Your task to perform on an android device: open app "Indeed Job Search" Image 0: 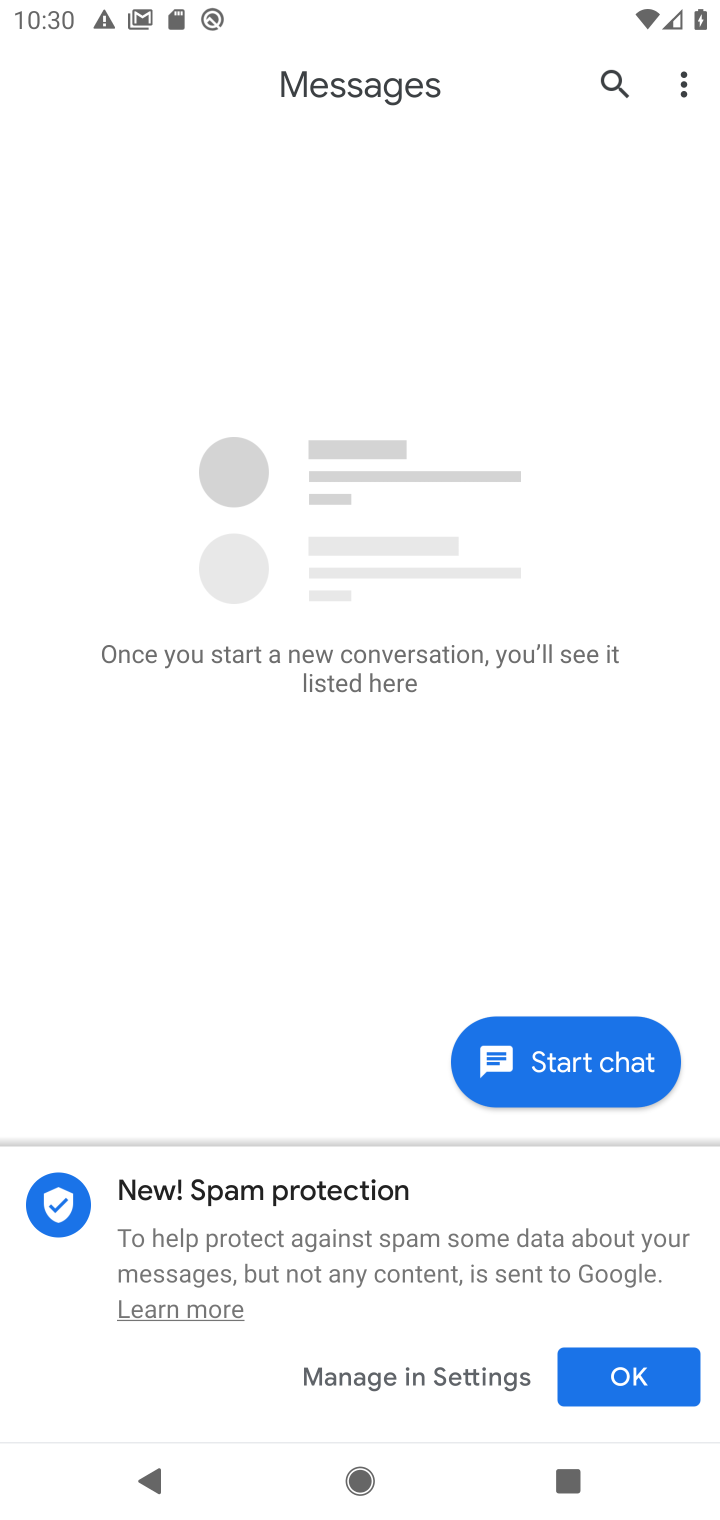
Step 0: press back button
Your task to perform on an android device: open app "Indeed Job Search" Image 1: 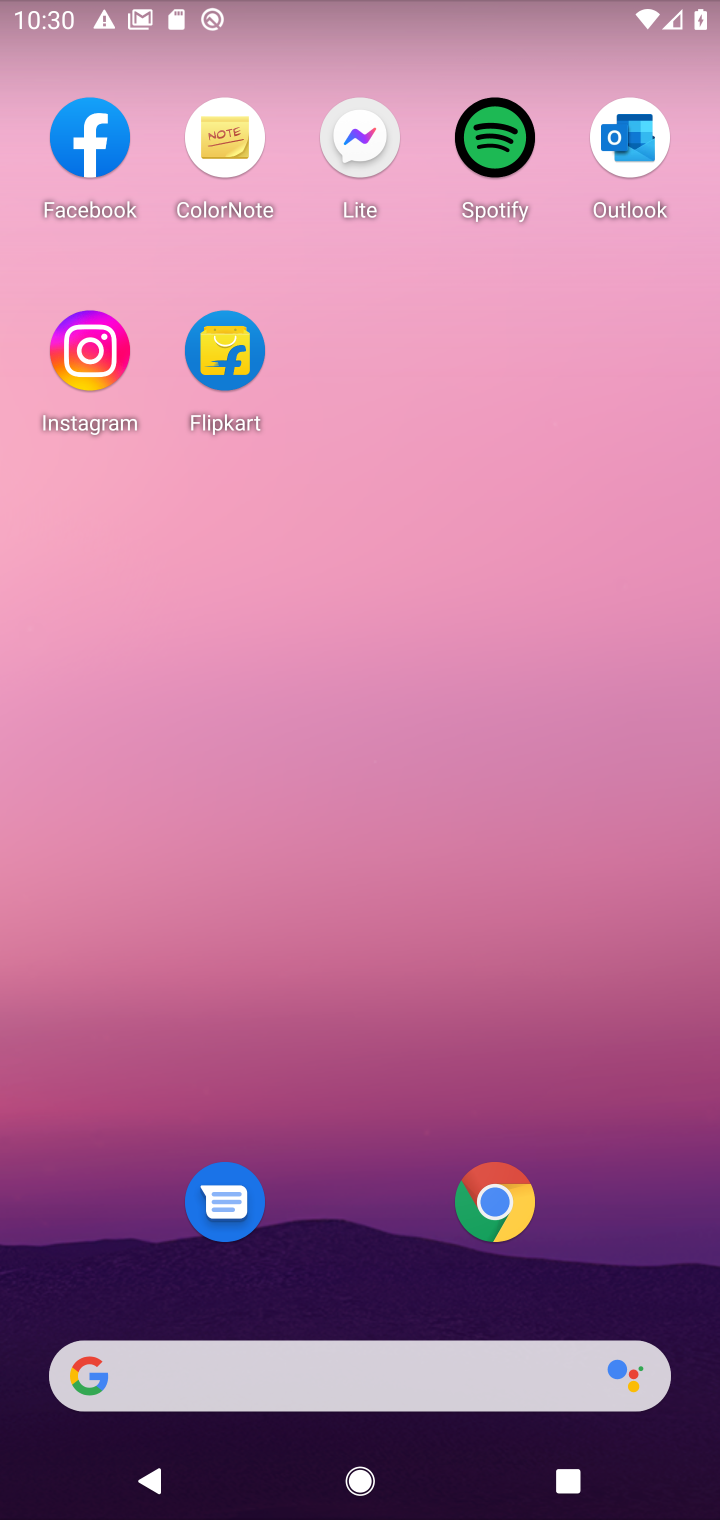
Step 1: drag from (390, 1383) to (457, 135)
Your task to perform on an android device: open app "Indeed Job Search" Image 2: 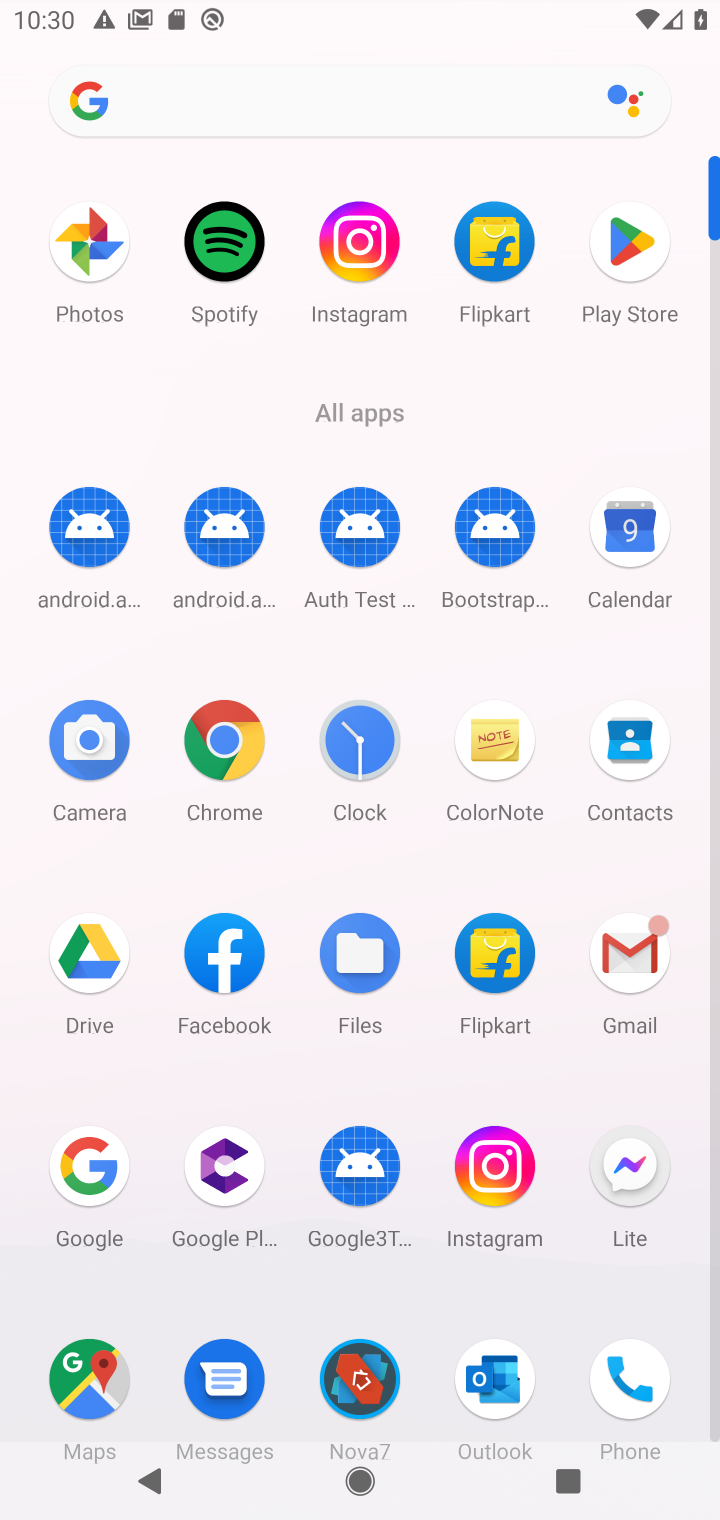
Step 2: click (651, 240)
Your task to perform on an android device: open app "Indeed Job Search" Image 3: 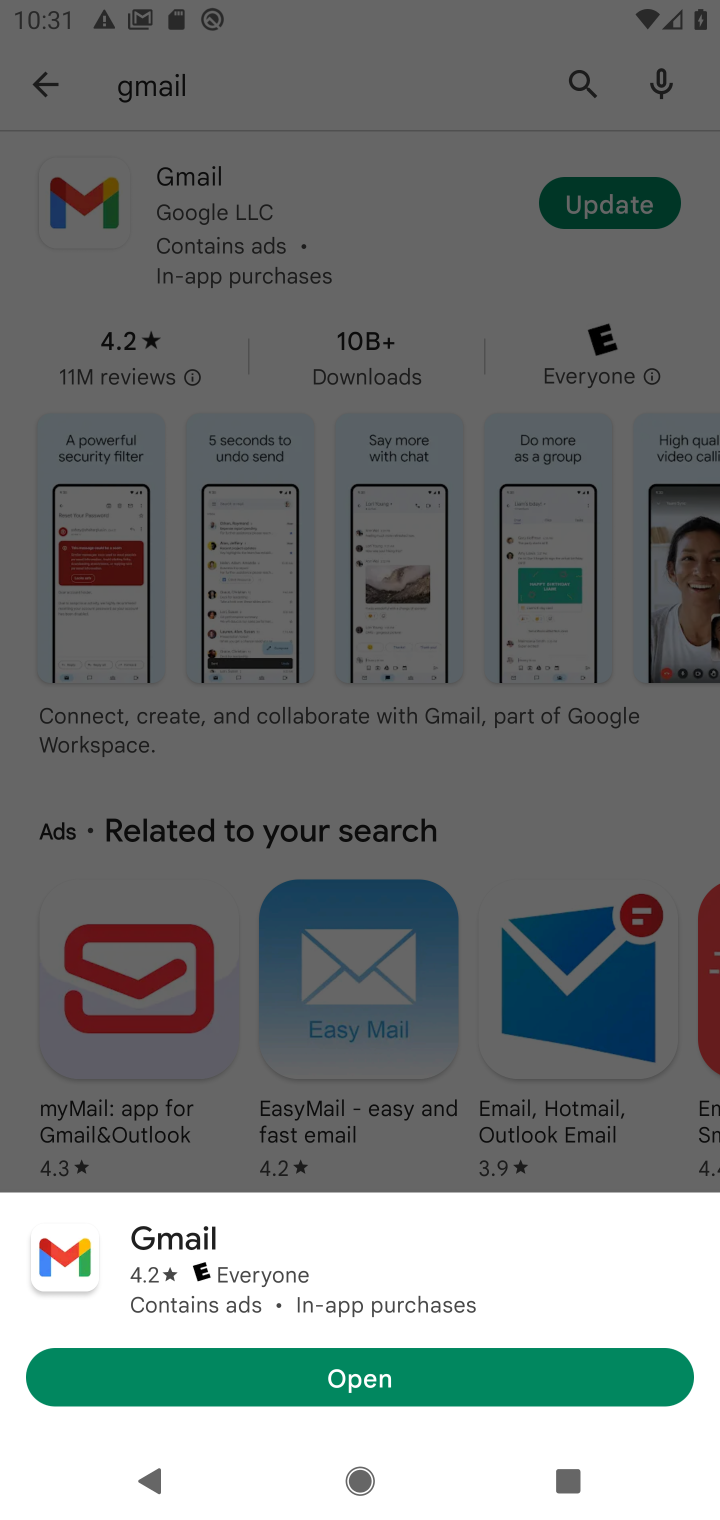
Step 3: press back button
Your task to perform on an android device: open app "Indeed Job Search" Image 4: 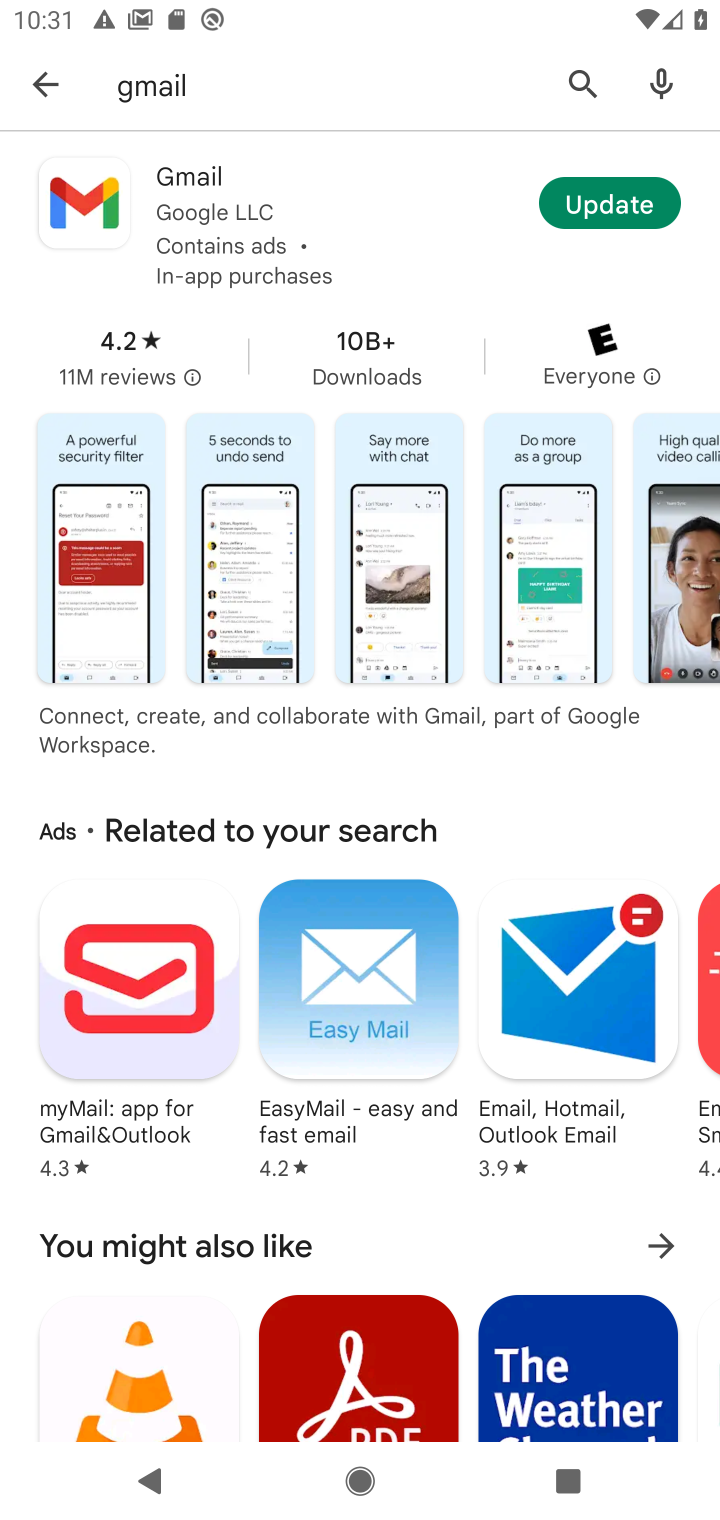
Step 4: click (568, 82)
Your task to perform on an android device: open app "Indeed Job Search" Image 5: 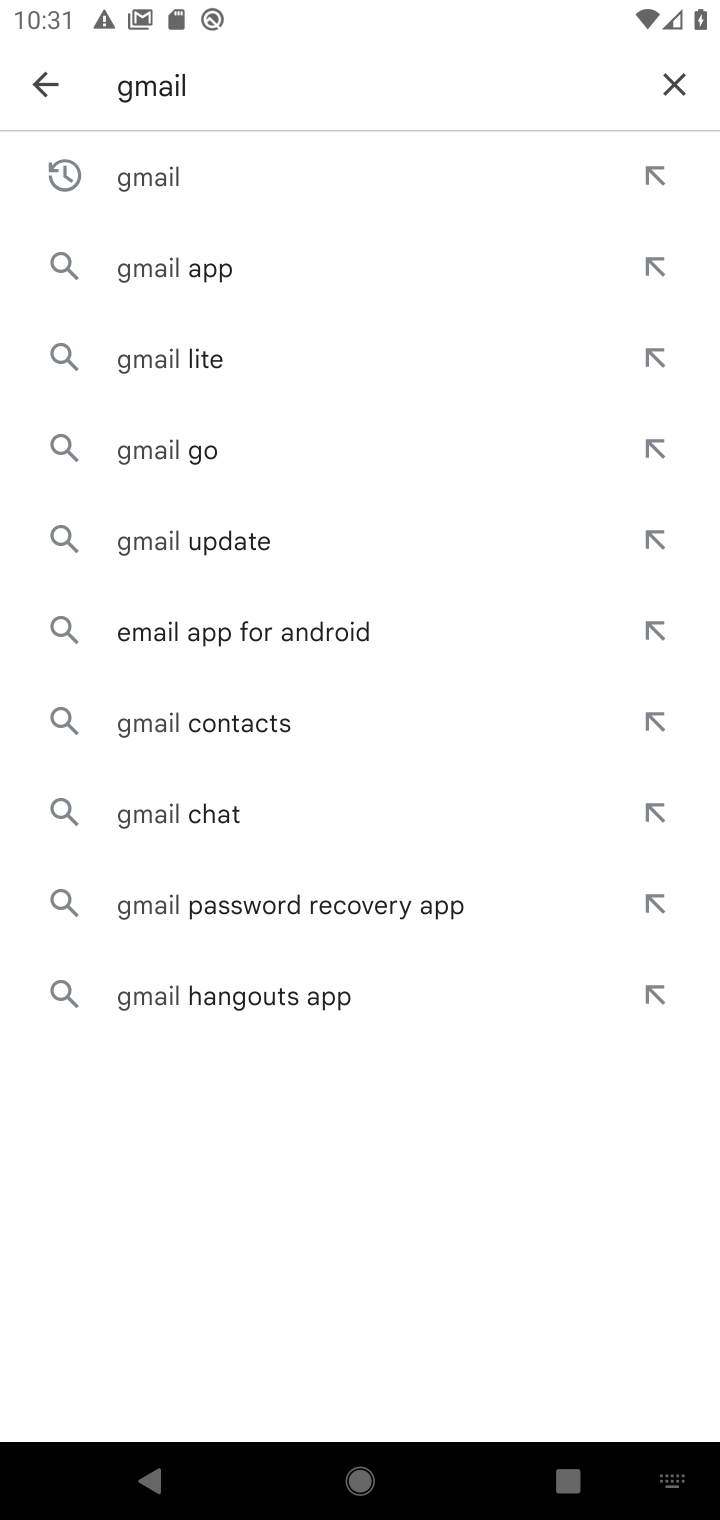
Step 5: click (677, 73)
Your task to perform on an android device: open app "Indeed Job Search" Image 6: 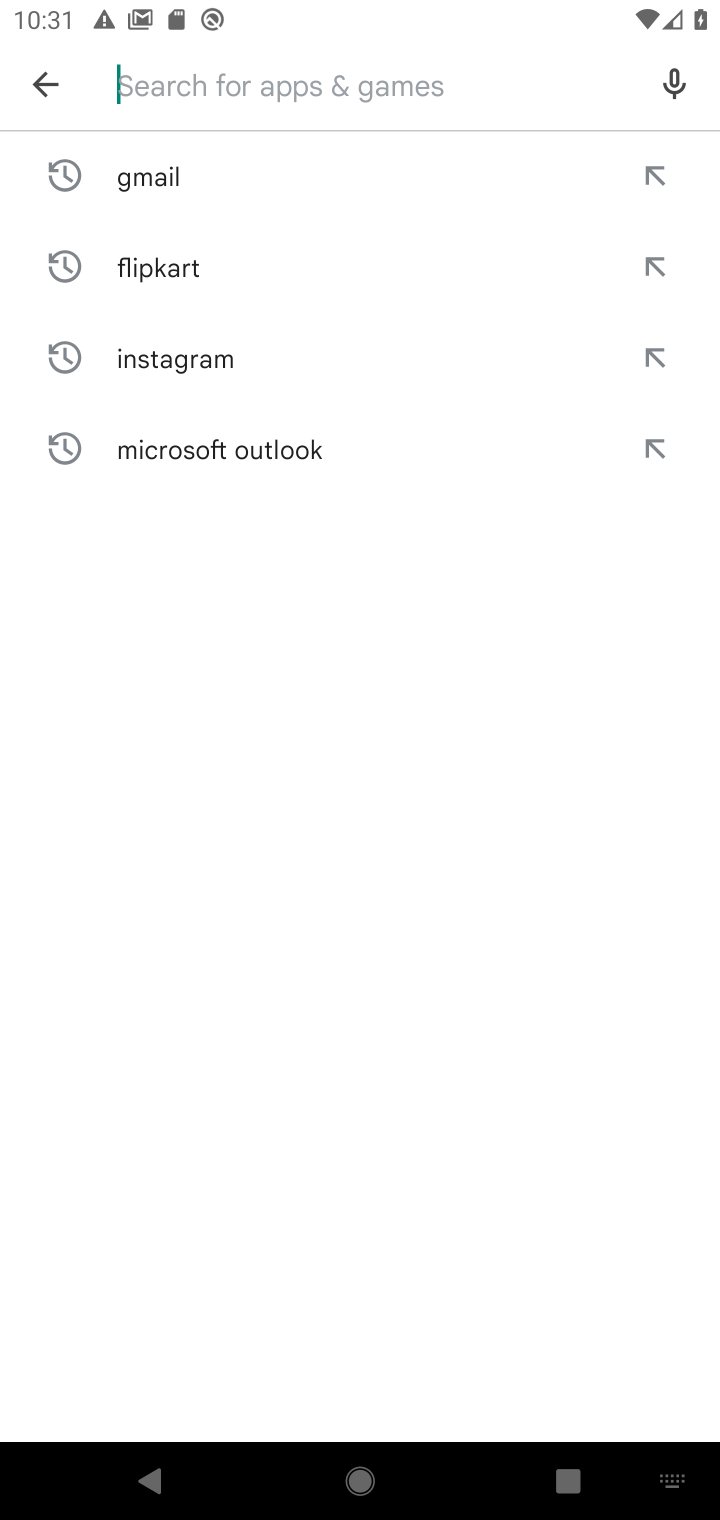
Step 6: type "Indeed Job Search"
Your task to perform on an android device: open app "Indeed Job Search" Image 7: 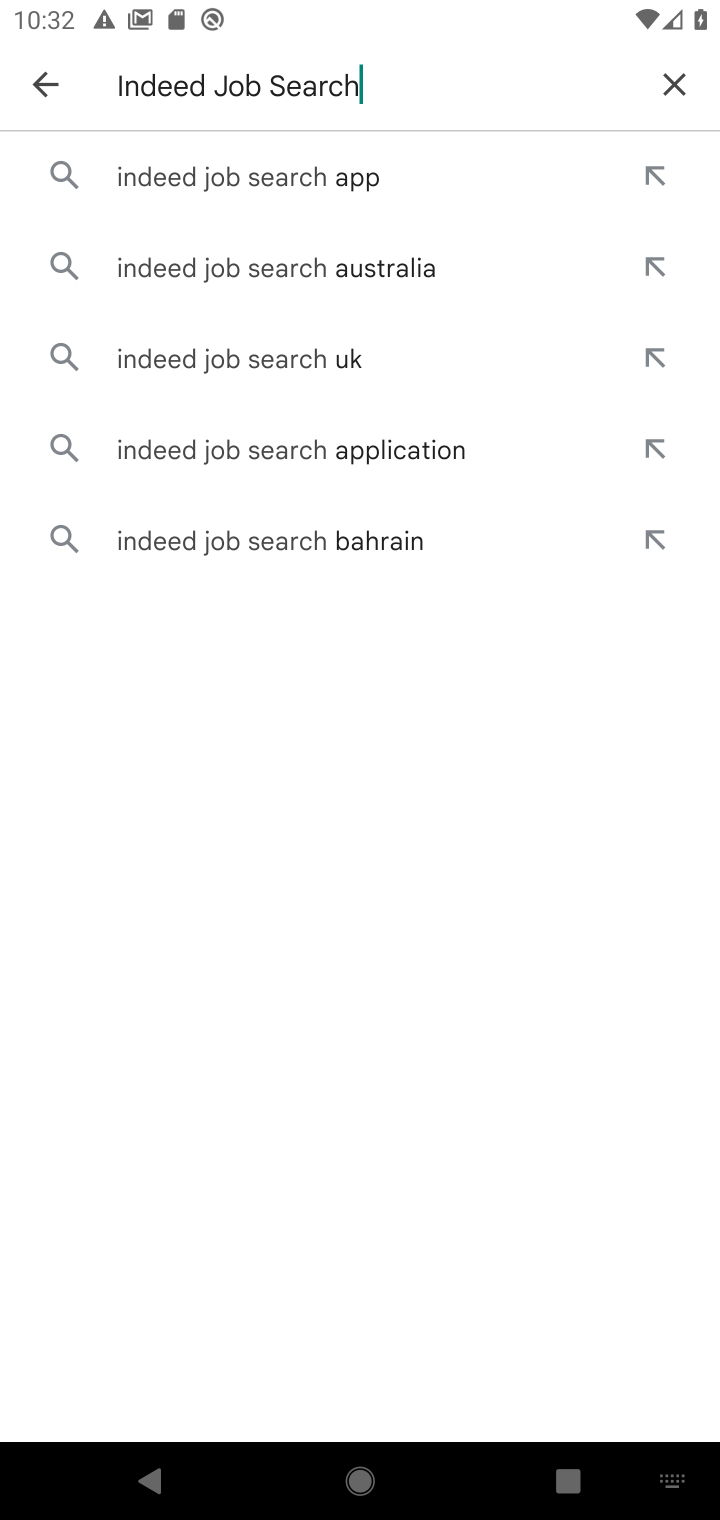
Step 7: click (316, 164)
Your task to perform on an android device: open app "Indeed Job Search" Image 8: 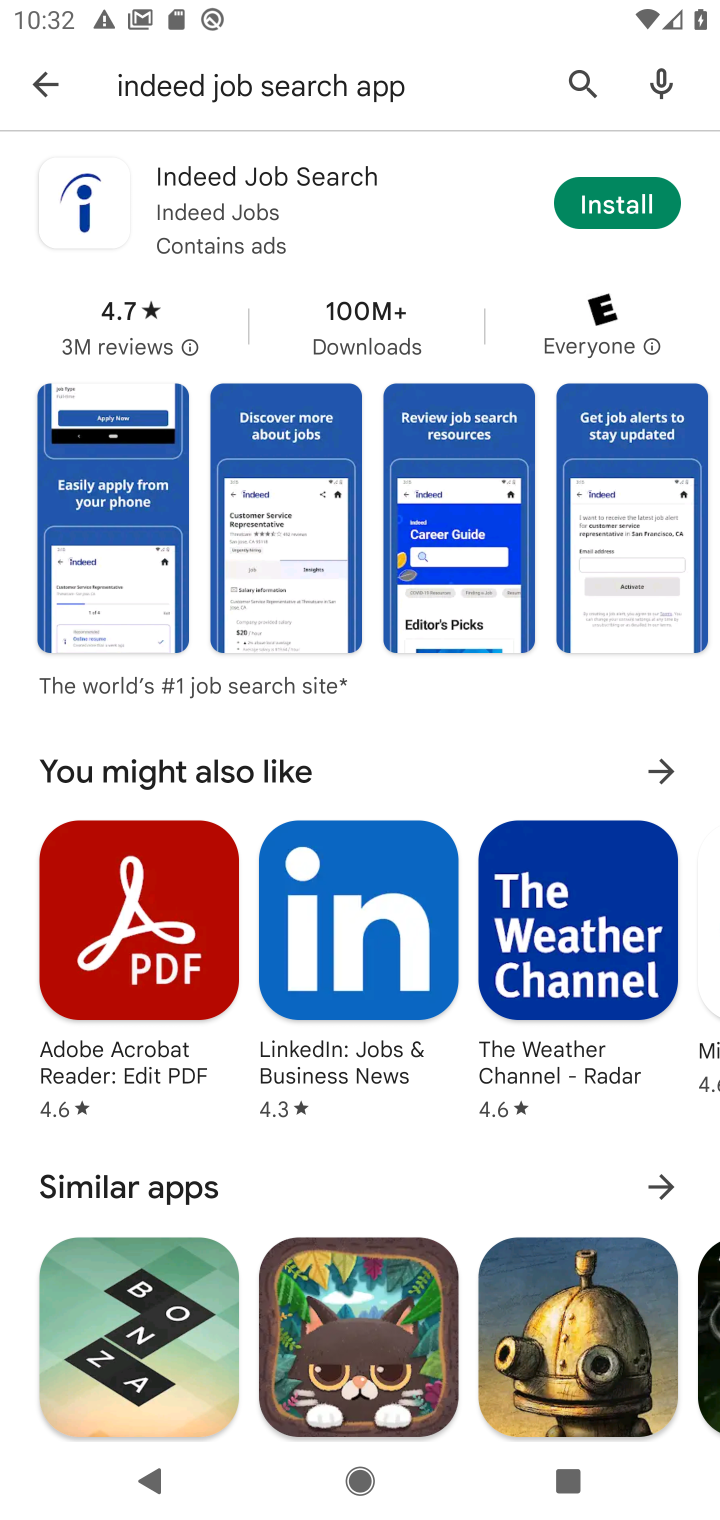
Step 8: task complete